Your task to perform on an android device: empty trash in the gmail app Image 0: 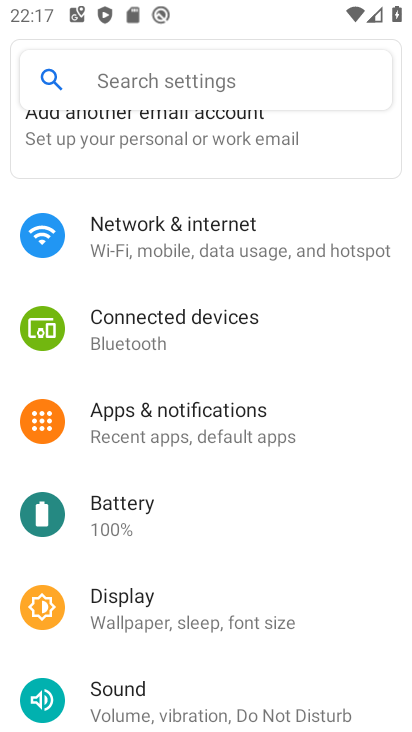
Step 0: press home button
Your task to perform on an android device: empty trash in the gmail app Image 1: 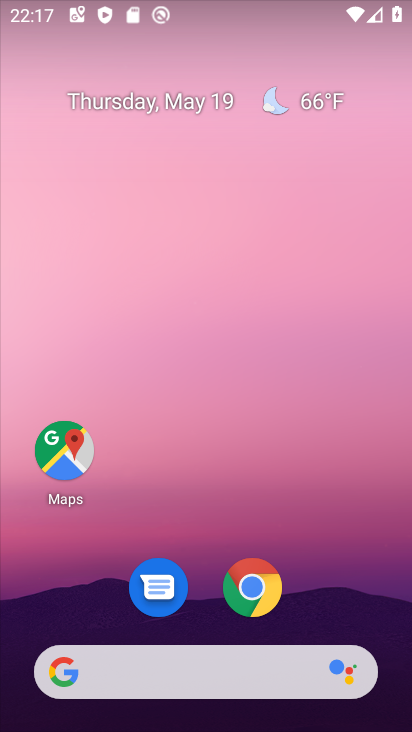
Step 1: drag from (243, 711) to (166, 354)
Your task to perform on an android device: empty trash in the gmail app Image 2: 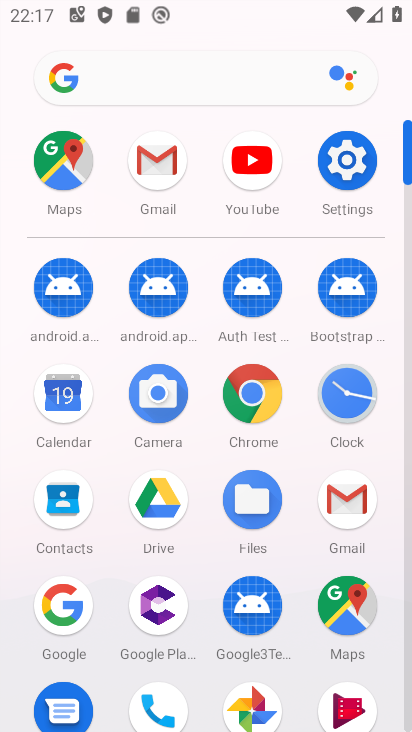
Step 2: click (157, 181)
Your task to perform on an android device: empty trash in the gmail app Image 3: 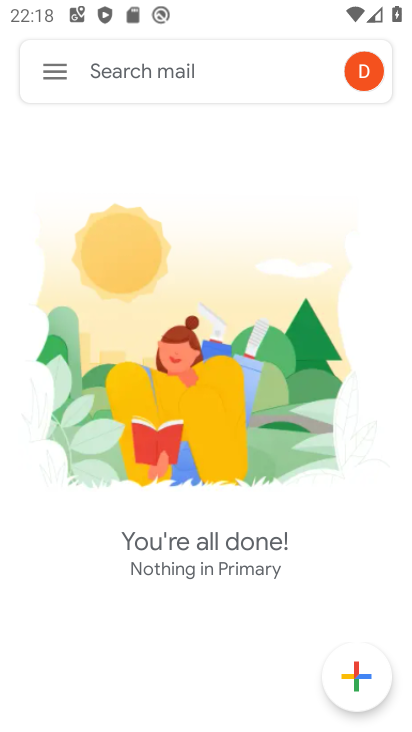
Step 3: click (50, 72)
Your task to perform on an android device: empty trash in the gmail app Image 4: 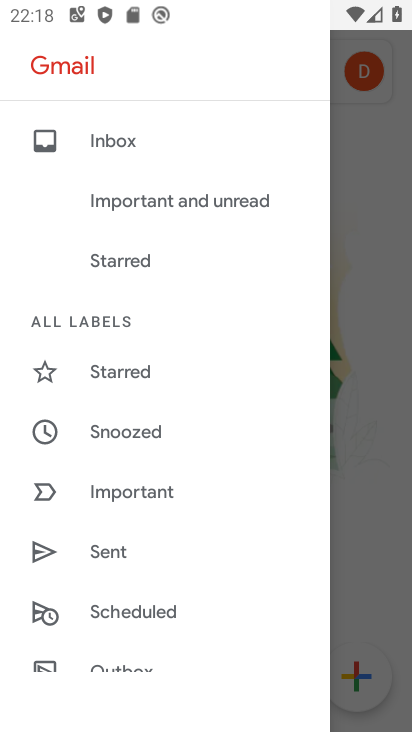
Step 4: drag from (175, 616) to (154, 388)
Your task to perform on an android device: empty trash in the gmail app Image 5: 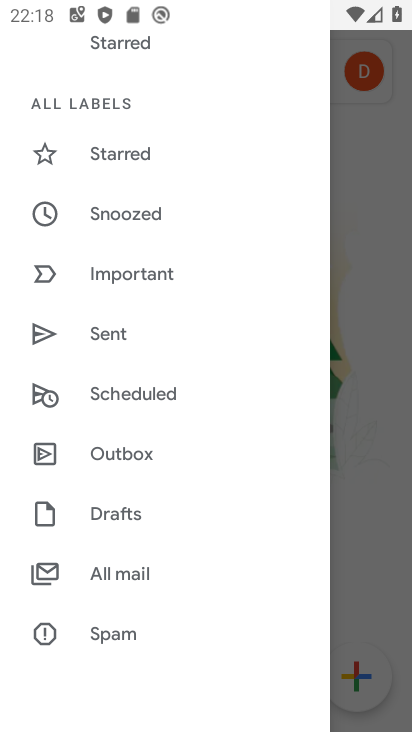
Step 5: drag from (142, 553) to (143, 343)
Your task to perform on an android device: empty trash in the gmail app Image 6: 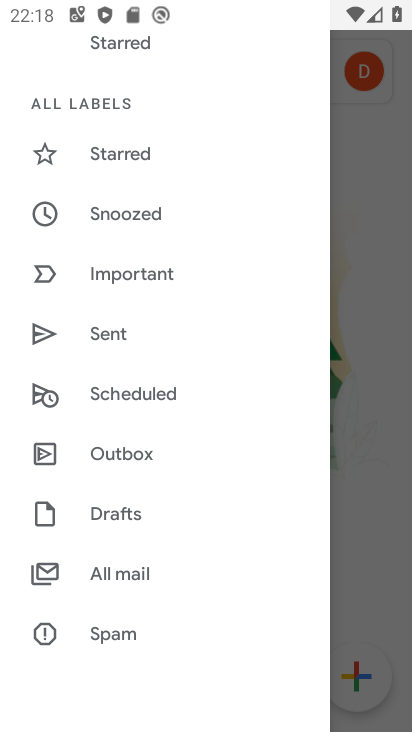
Step 6: drag from (160, 611) to (115, 322)
Your task to perform on an android device: empty trash in the gmail app Image 7: 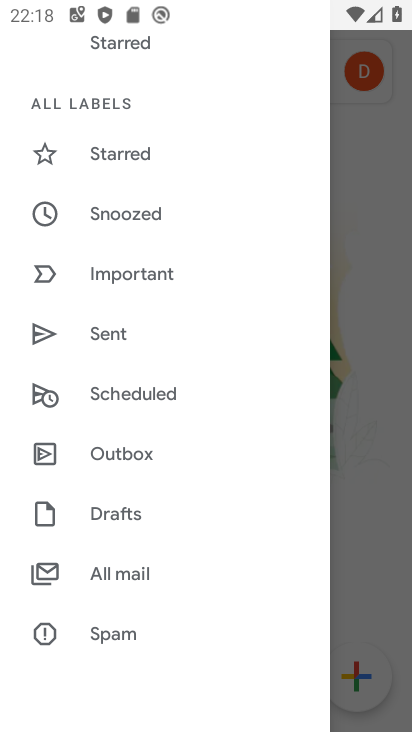
Step 7: drag from (96, 620) to (131, 404)
Your task to perform on an android device: empty trash in the gmail app Image 8: 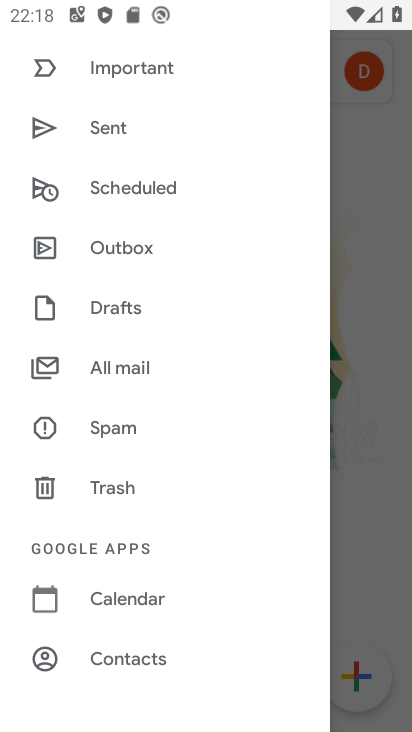
Step 8: click (128, 489)
Your task to perform on an android device: empty trash in the gmail app Image 9: 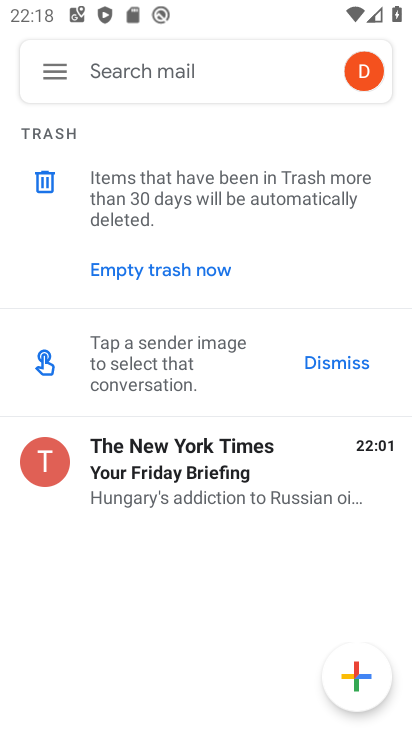
Step 9: task complete